Your task to perform on an android device: move an email to a new category in the gmail app Image 0: 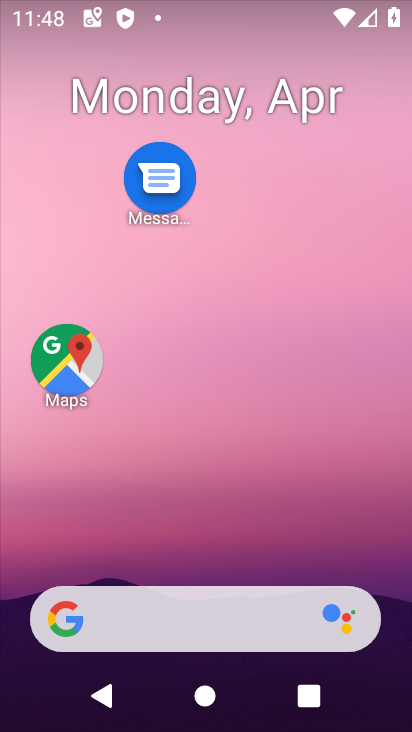
Step 0: drag from (201, 530) to (195, 64)
Your task to perform on an android device: move an email to a new category in the gmail app Image 1: 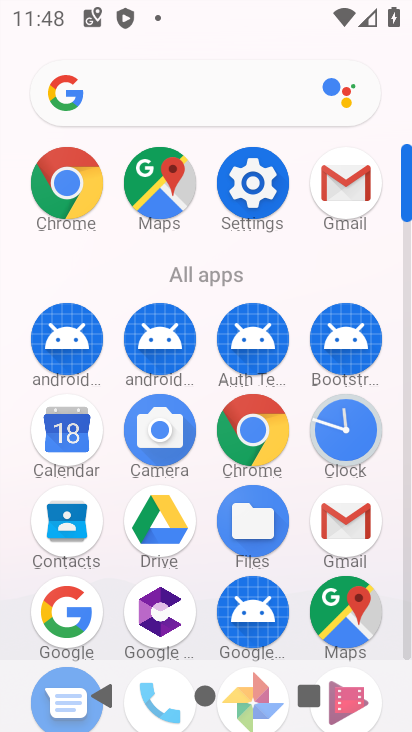
Step 1: click (347, 193)
Your task to perform on an android device: move an email to a new category in the gmail app Image 2: 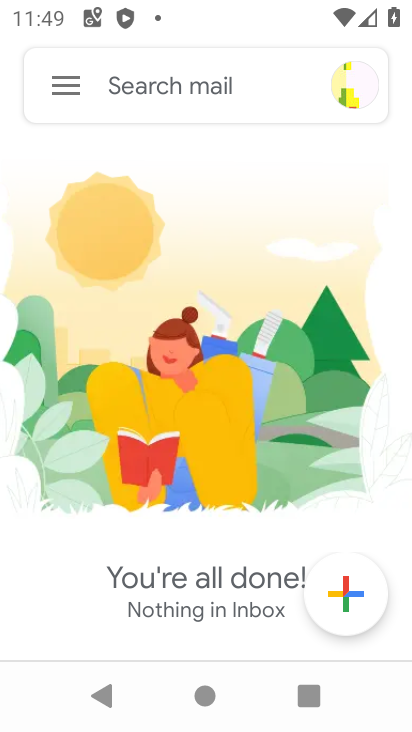
Step 2: task complete